Your task to perform on an android device: Go to Maps Image 0: 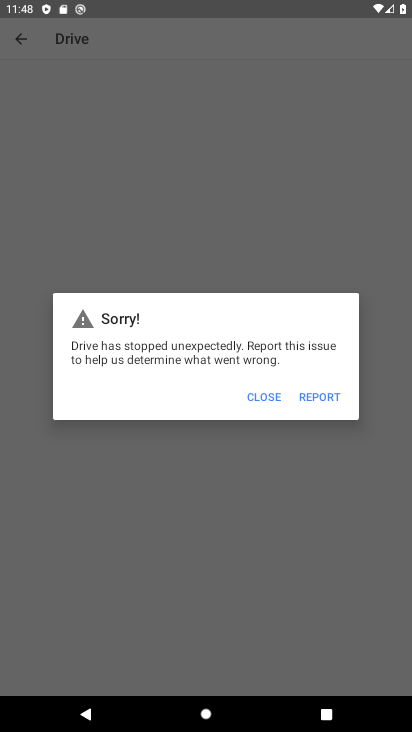
Step 0: press home button
Your task to perform on an android device: Go to Maps Image 1: 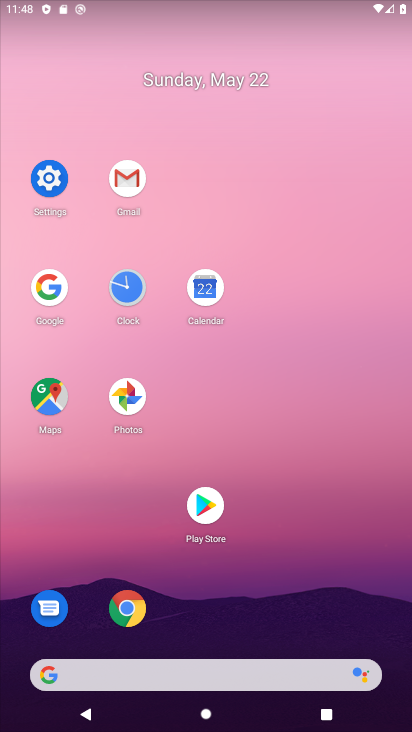
Step 1: click (47, 396)
Your task to perform on an android device: Go to Maps Image 2: 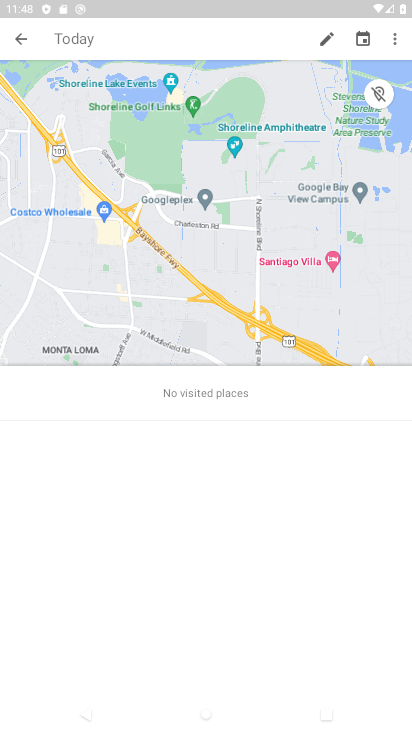
Step 2: task complete